Your task to perform on an android device: empty trash in the gmail app Image 0: 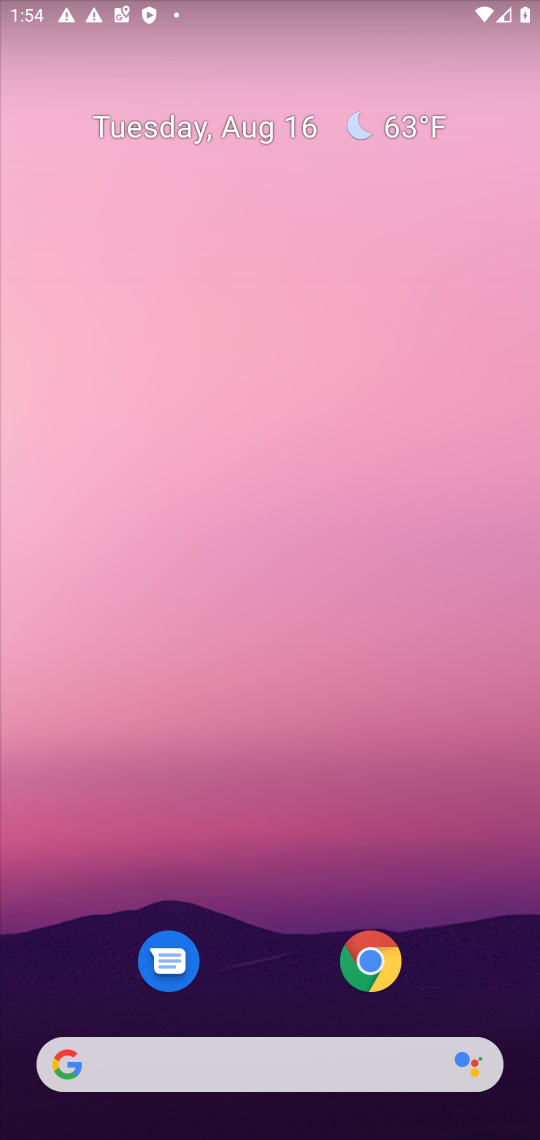
Step 0: drag from (457, 999) to (202, 39)
Your task to perform on an android device: empty trash in the gmail app Image 1: 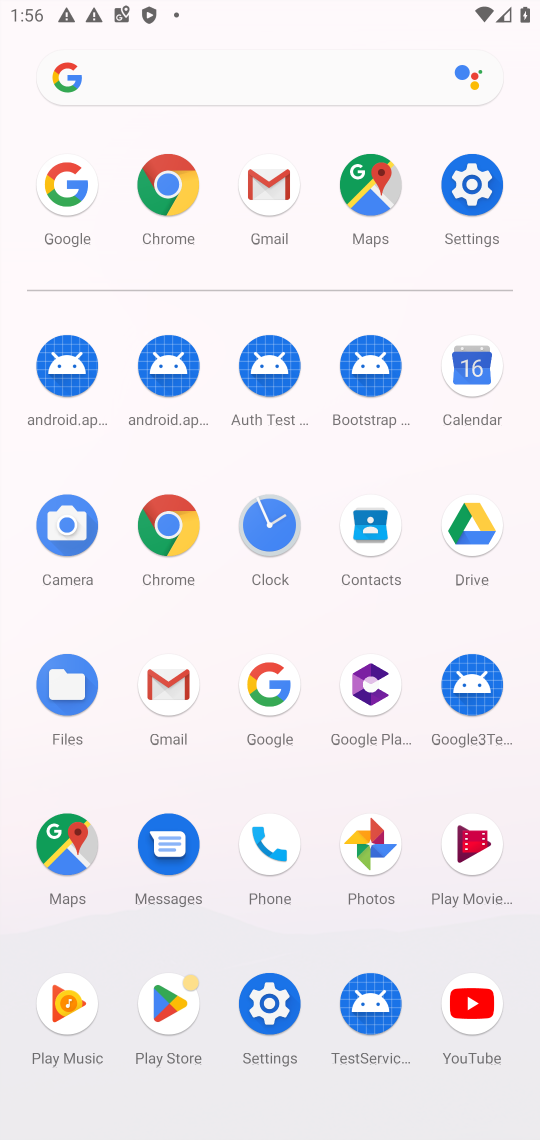
Step 1: click (176, 688)
Your task to perform on an android device: empty trash in the gmail app Image 2: 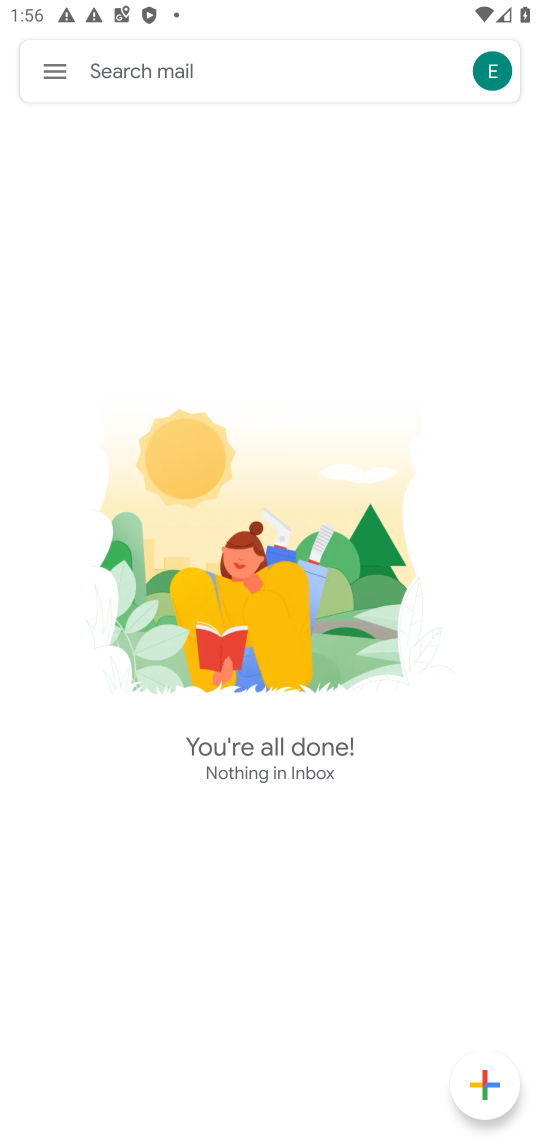
Step 2: click (64, 78)
Your task to perform on an android device: empty trash in the gmail app Image 3: 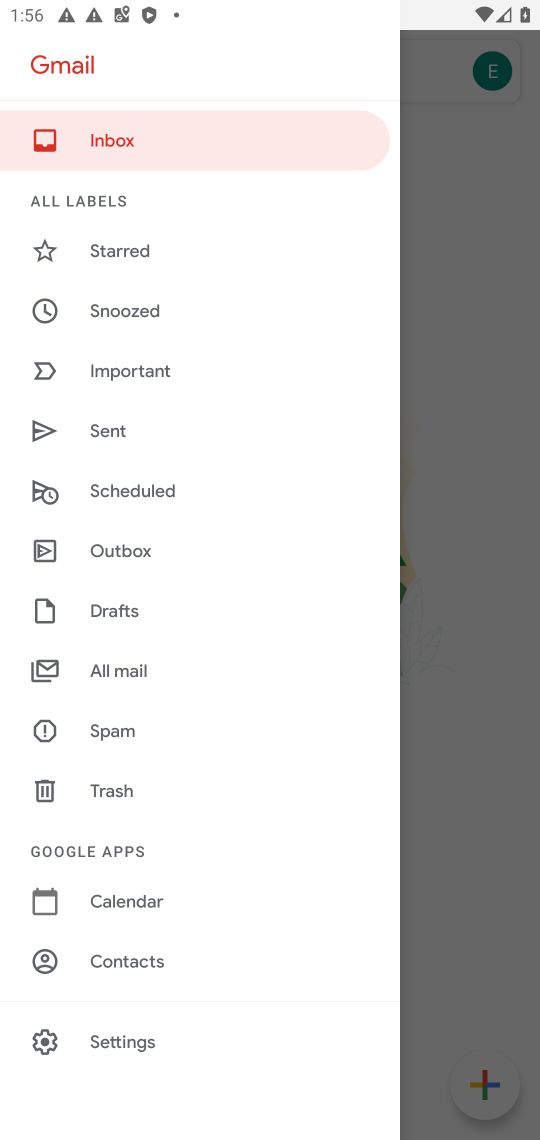
Step 3: click (123, 773)
Your task to perform on an android device: empty trash in the gmail app Image 4: 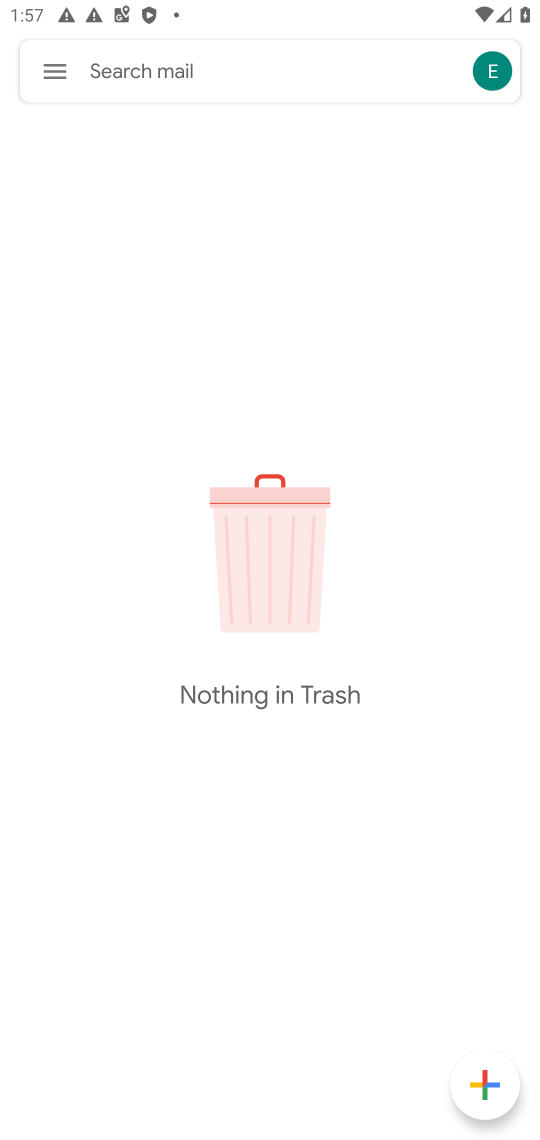
Step 4: task complete